Your task to perform on an android device: toggle pop-ups in chrome Image 0: 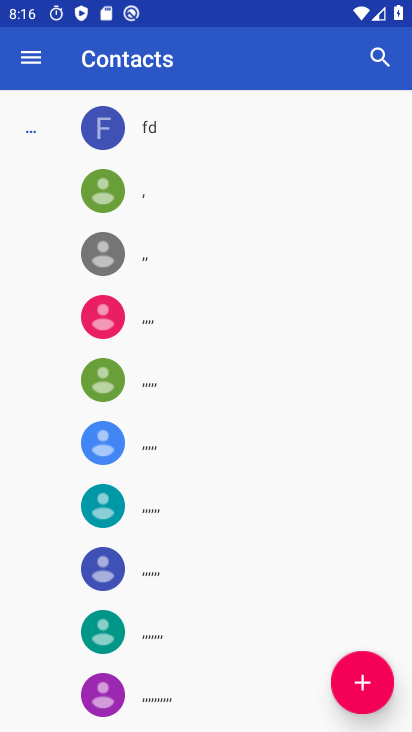
Step 0: press home button
Your task to perform on an android device: toggle pop-ups in chrome Image 1: 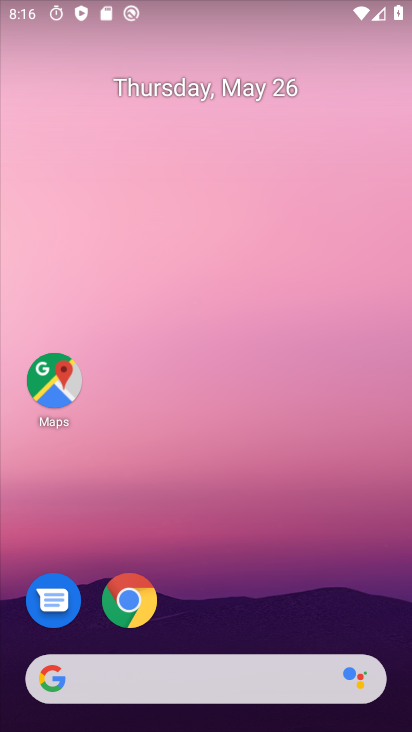
Step 1: click (125, 596)
Your task to perform on an android device: toggle pop-ups in chrome Image 2: 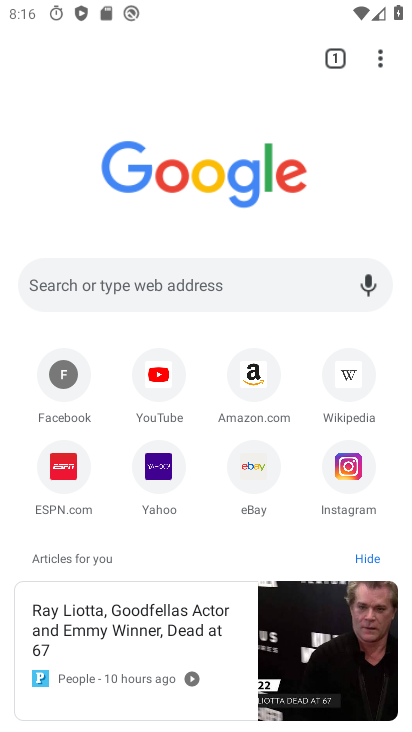
Step 2: click (373, 59)
Your task to perform on an android device: toggle pop-ups in chrome Image 3: 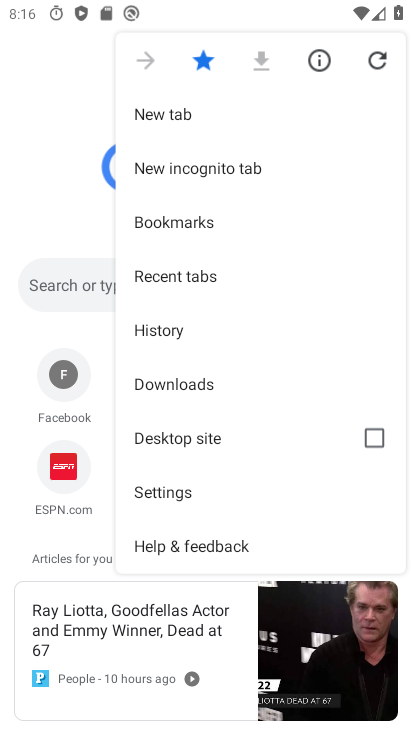
Step 3: click (176, 490)
Your task to perform on an android device: toggle pop-ups in chrome Image 4: 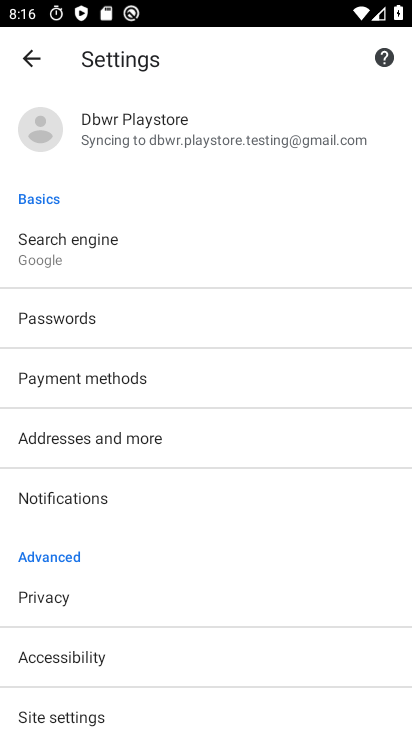
Step 4: click (51, 713)
Your task to perform on an android device: toggle pop-ups in chrome Image 5: 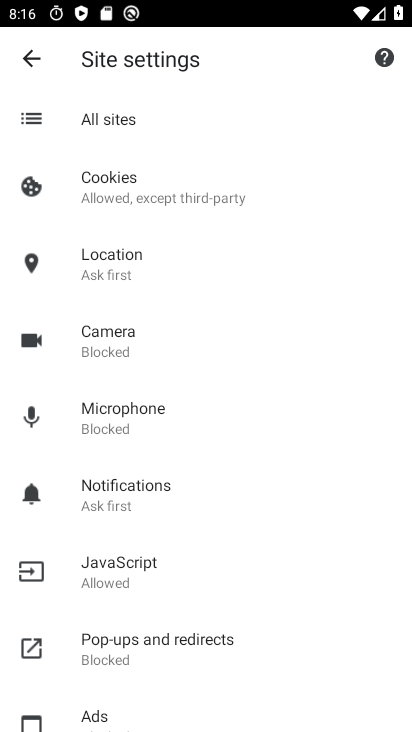
Step 5: click (124, 651)
Your task to perform on an android device: toggle pop-ups in chrome Image 6: 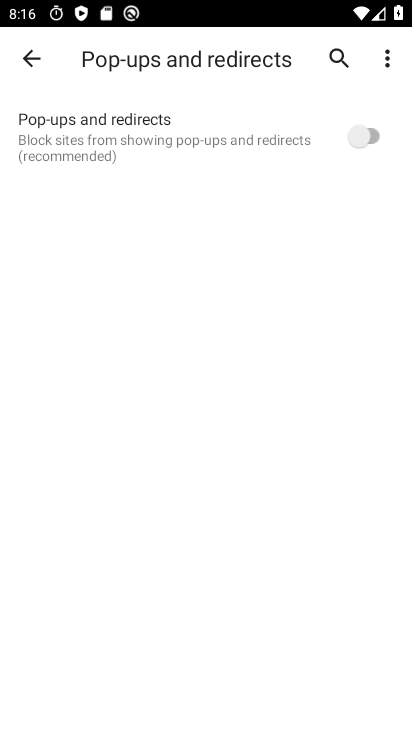
Step 6: click (364, 133)
Your task to perform on an android device: toggle pop-ups in chrome Image 7: 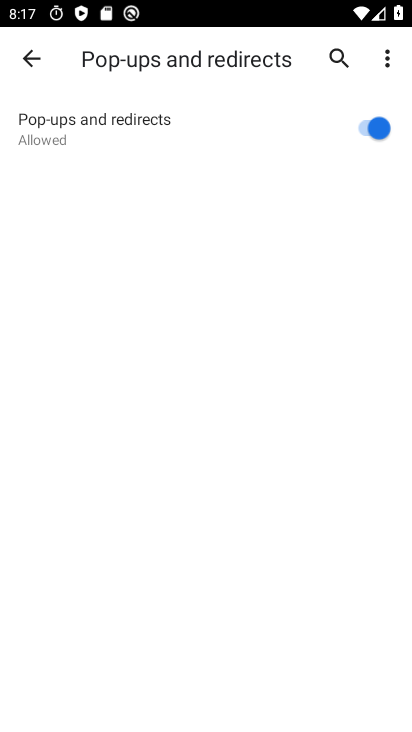
Step 7: task complete